Your task to perform on an android device: set the timer Image 0: 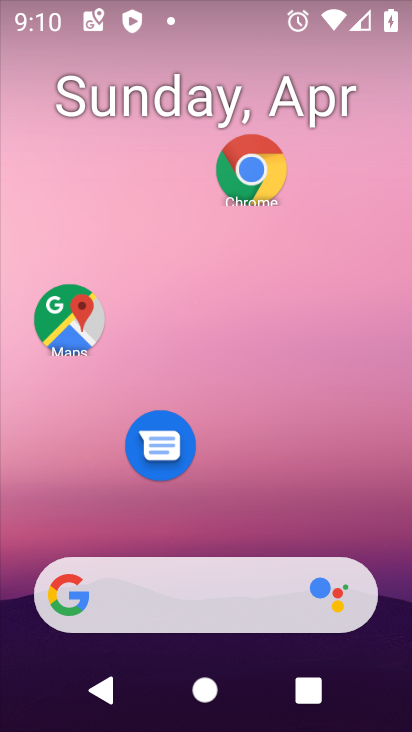
Step 0: drag from (292, 469) to (320, 48)
Your task to perform on an android device: set the timer Image 1: 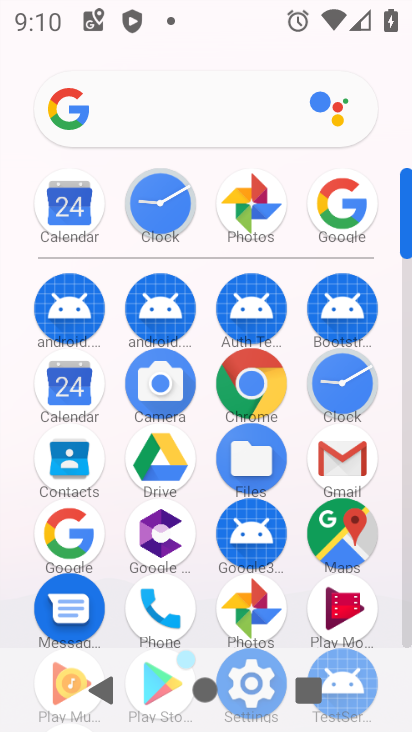
Step 1: click (346, 377)
Your task to perform on an android device: set the timer Image 2: 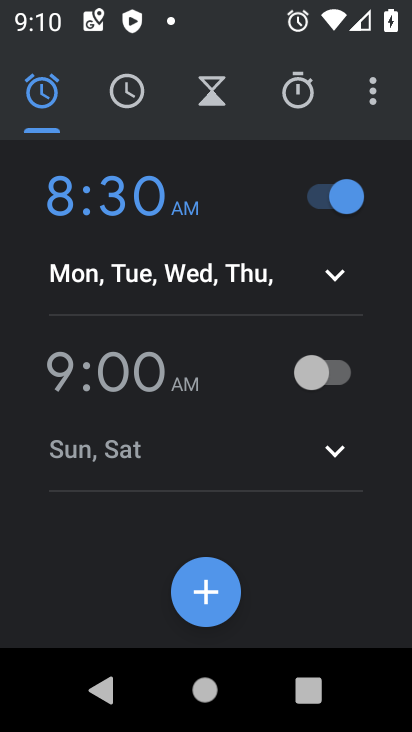
Step 2: click (211, 88)
Your task to perform on an android device: set the timer Image 3: 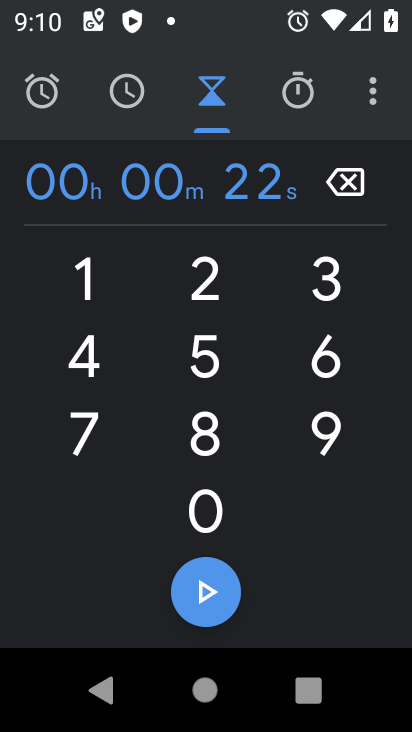
Step 3: click (200, 279)
Your task to perform on an android device: set the timer Image 4: 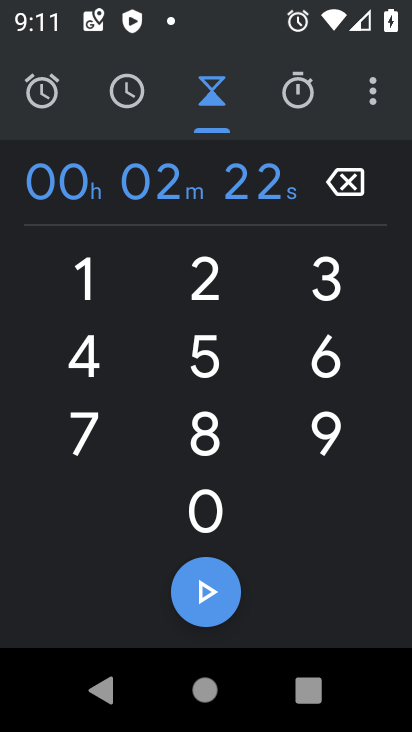
Step 4: task complete